Your task to perform on an android device: open device folders in google photos Image 0: 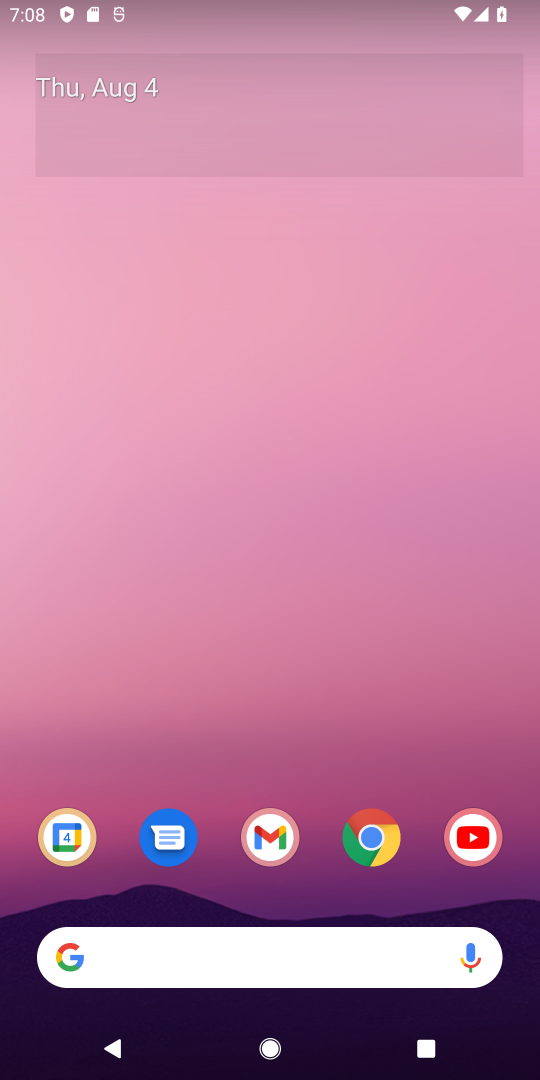
Step 0: drag from (288, 684) to (276, 169)
Your task to perform on an android device: open device folders in google photos Image 1: 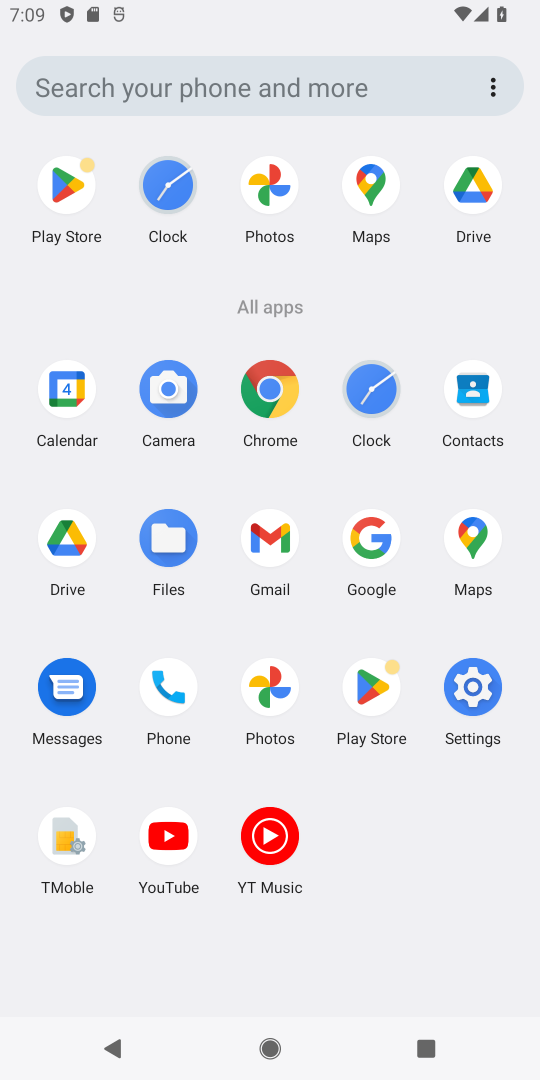
Step 1: click (267, 694)
Your task to perform on an android device: open device folders in google photos Image 2: 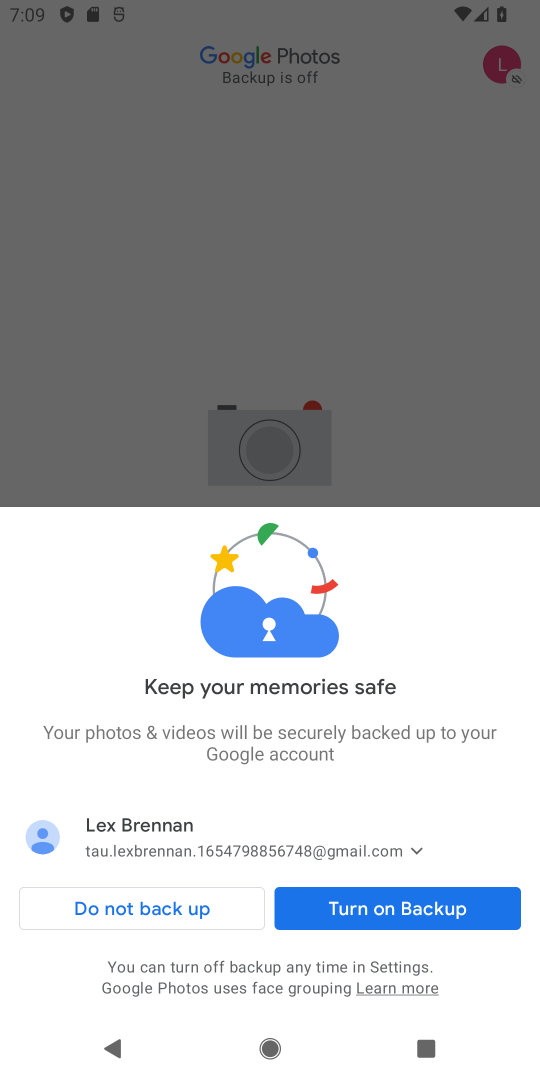
Step 2: click (157, 908)
Your task to perform on an android device: open device folders in google photos Image 3: 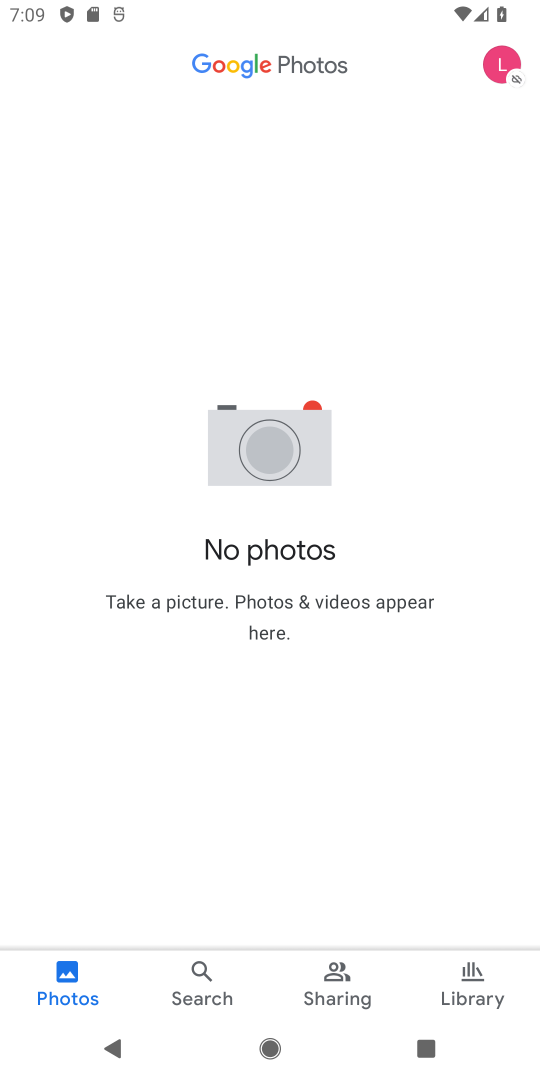
Step 3: task complete